Your task to perform on an android device: Open maps Image 0: 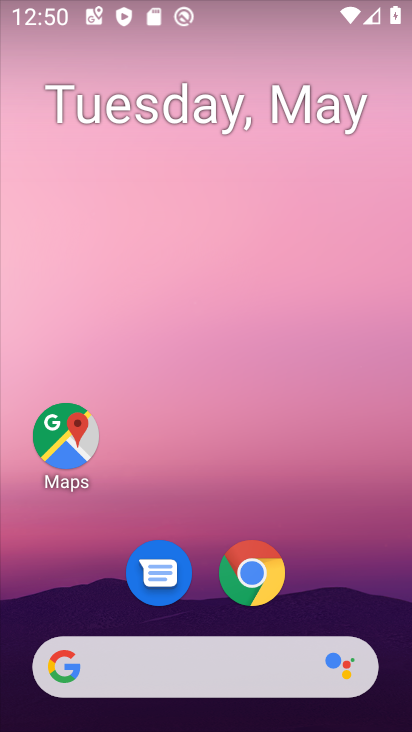
Step 0: drag from (354, 551) to (394, 159)
Your task to perform on an android device: Open maps Image 1: 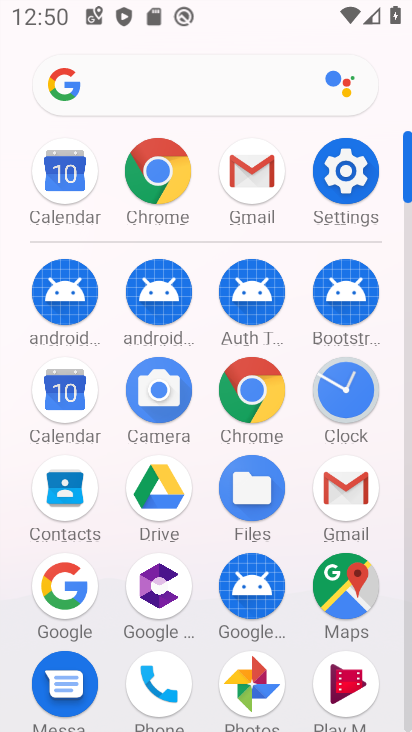
Step 1: click (340, 592)
Your task to perform on an android device: Open maps Image 2: 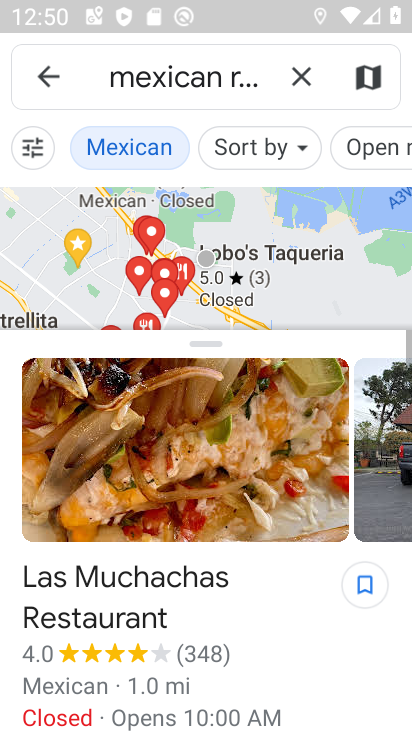
Step 2: task complete